Your task to perform on an android device: Go to Google maps Image 0: 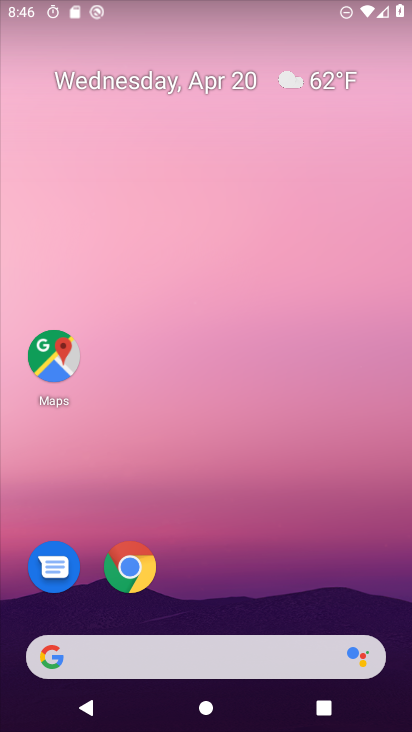
Step 0: click (57, 353)
Your task to perform on an android device: Go to Google maps Image 1: 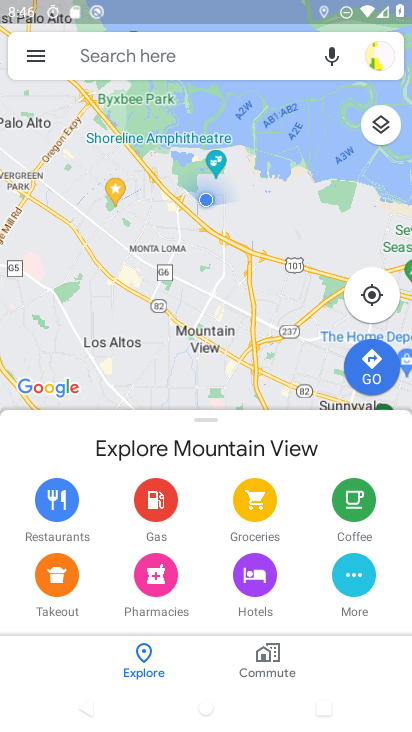
Step 1: task complete